Your task to perform on an android device: toggle data saver in the chrome app Image 0: 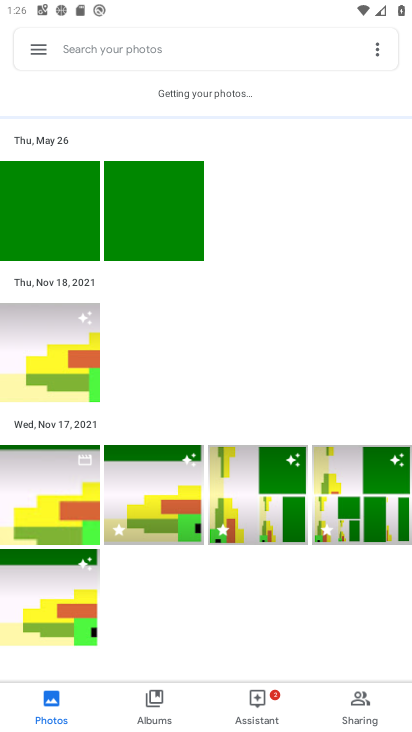
Step 0: press home button
Your task to perform on an android device: toggle data saver in the chrome app Image 1: 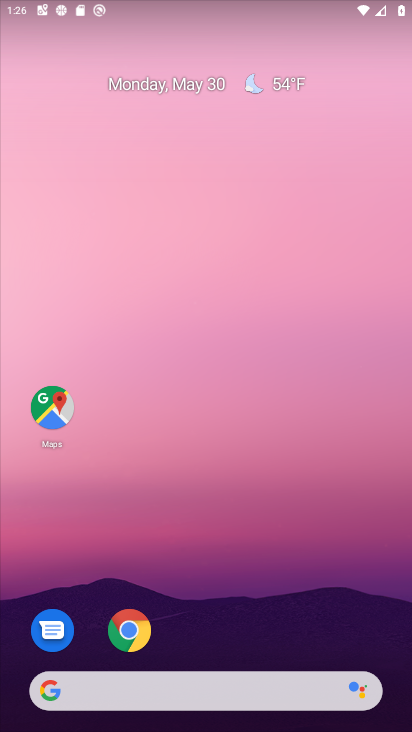
Step 1: click (128, 639)
Your task to perform on an android device: toggle data saver in the chrome app Image 2: 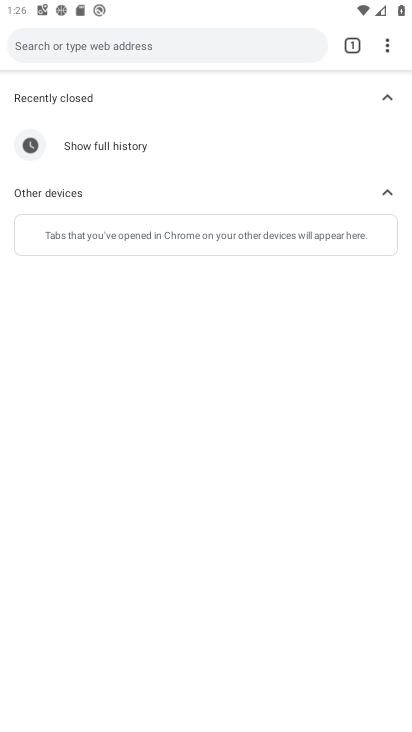
Step 2: drag from (387, 41) to (254, 382)
Your task to perform on an android device: toggle data saver in the chrome app Image 3: 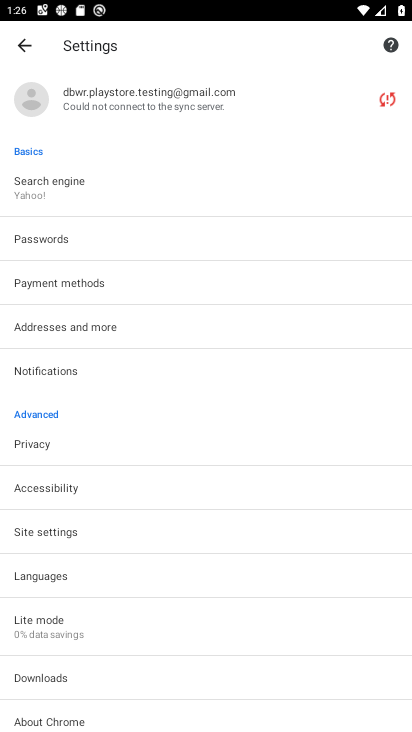
Step 3: click (49, 622)
Your task to perform on an android device: toggle data saver in the chrome app Image 4: 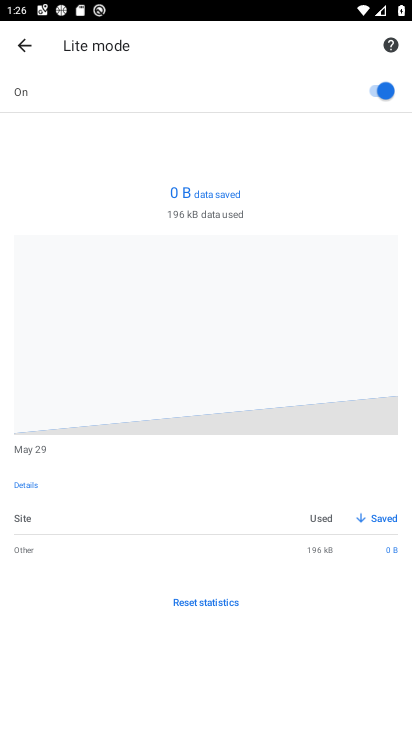
Step 4: click (371, 88)
Your task to perform on an android device: toggle data saver in the chrome app Image 5: 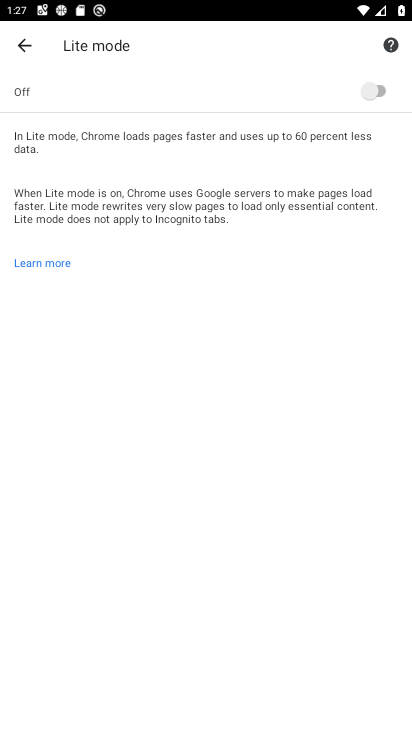
Step 5: task complete